Your task to perform on an android device: Open calendar and show me the fourth week of next month Image 0: 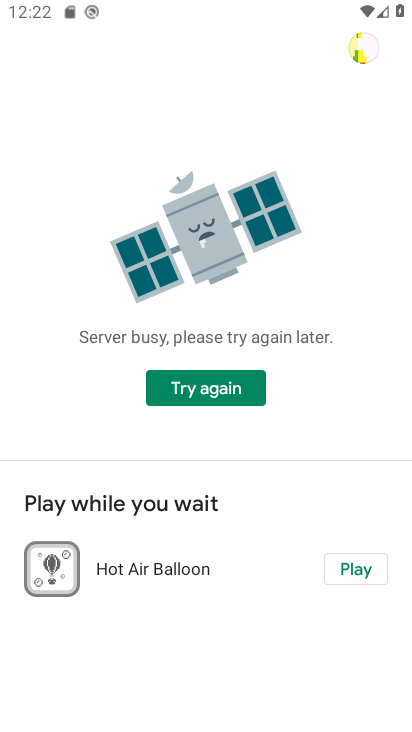
Step 0: press home button
Your task to perform on an android device: Open calendar and show me the fourth week of next month Image 1: 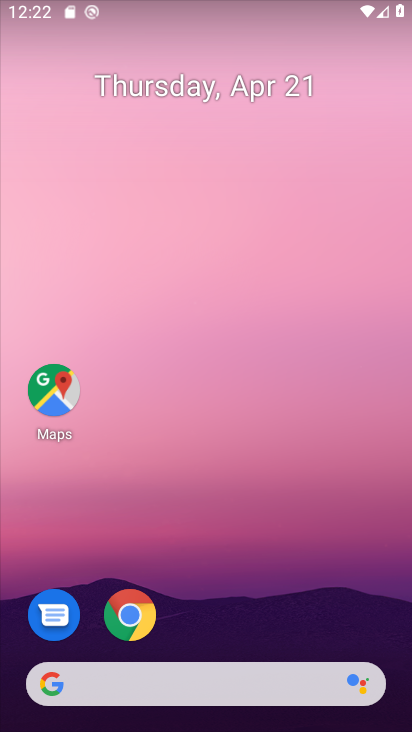
Step 1: drag from (265, 567) to (333, 56)
Your task to perform on an android device: Open calendar and show me the fourth week of next month Image 2: 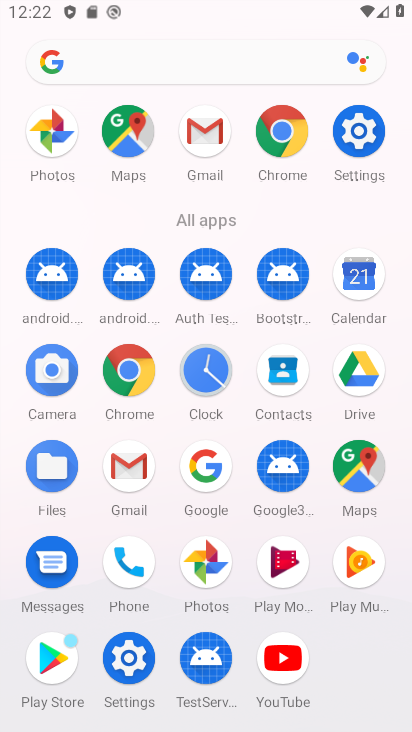
Step 2: click (354, 357)
Your task to perform on an android device: Open calendar and show me the fourth week of next month Image 3: 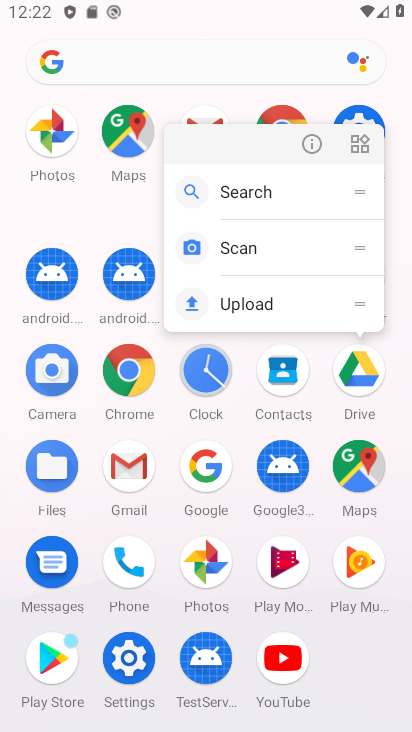
Step 3: press home button
Your task to perform on an android device: Open calendar and show me the fourth week of next month Image 4: 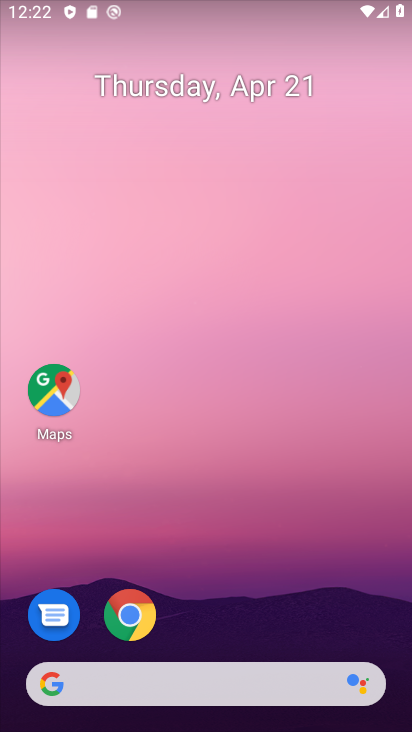
Step 4: drag from (331, 584) to (244, 46)
Your task to perform on an android device: Open calendar and show me the fourth week of next month Image 5: 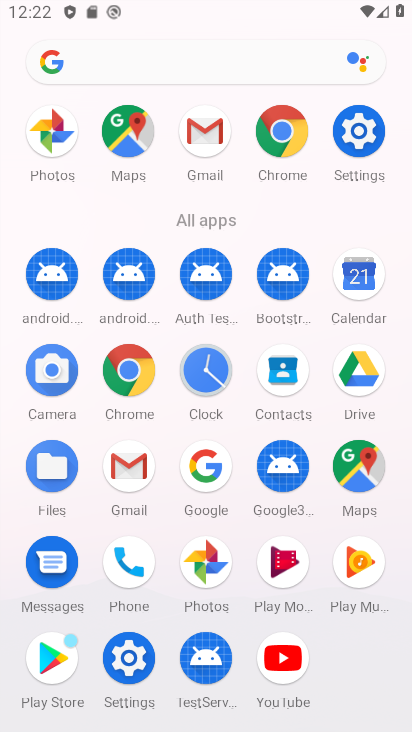
Step 5: click (358, 256)
Your task to perform on an android device: Open calendar and show me the fourth week of next month Image 6: 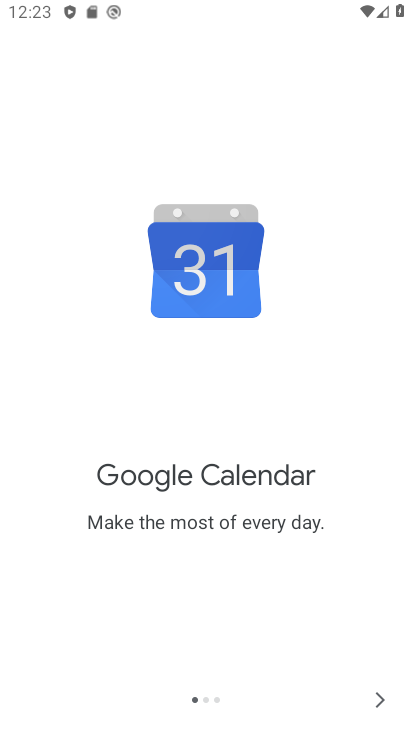
Step 6: click (380, 697)
Your task to perform on an android device: Open calendar and show me the fourth week of next month Image 7: 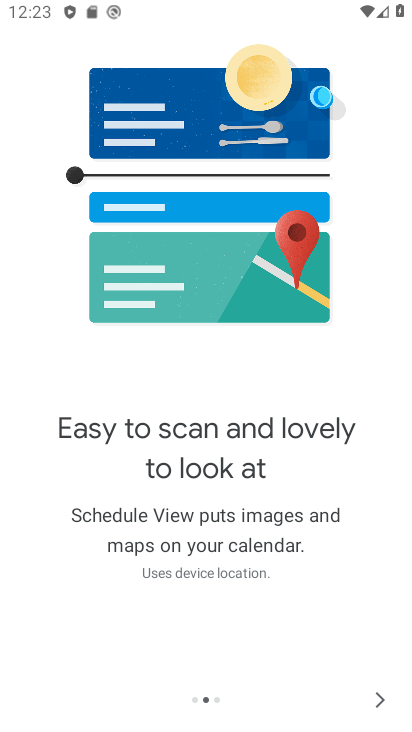
Step 7: click (380, 697)
Your task to perform on an android device: Open calendar and show me the fourth week of next month Image 8: 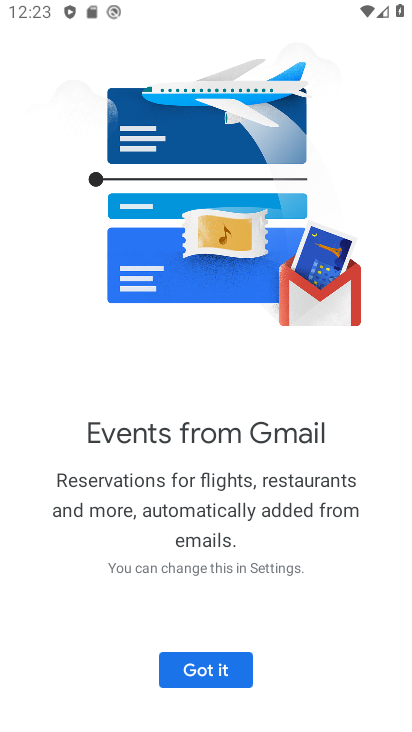
Step 8: click (209, 669)
Your task to perform on an android device: Open calendar and show me the fourth week of next month Image 9: 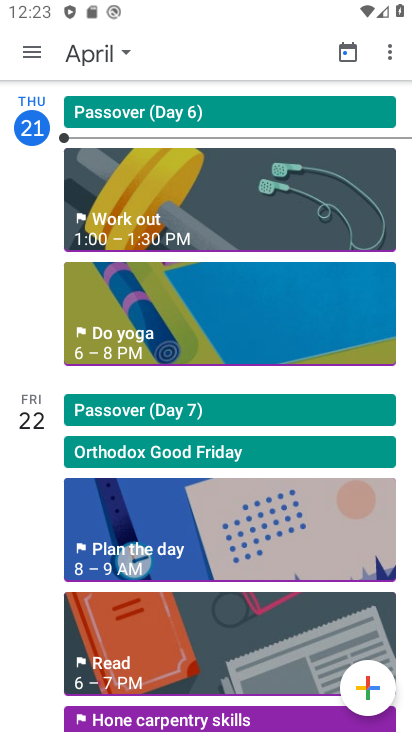
Step 9: click (99, 44)
Your task to perform on an android device: Open calendar and show me the fourth week of next month Image 10: 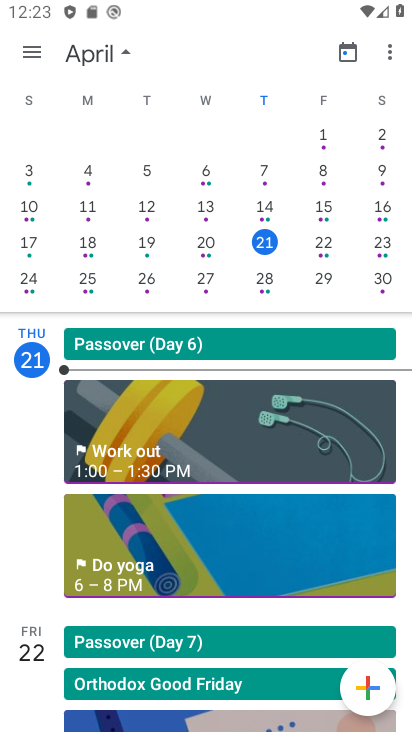
Step 10: drag from (388, 221) to (42, 258)
Your task to perform on an android device: Open calendar and show me the fourth week of next month Image 11: 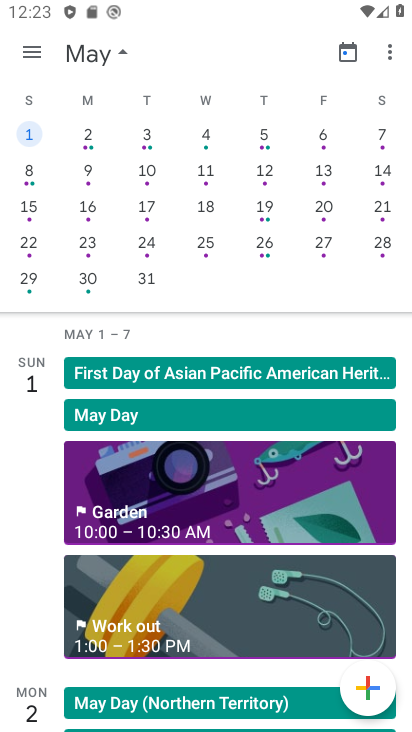
Step 11: click (26, 231)
Your task to perform on an android device: Open calendar and show me the fourth week of next month Image 12: 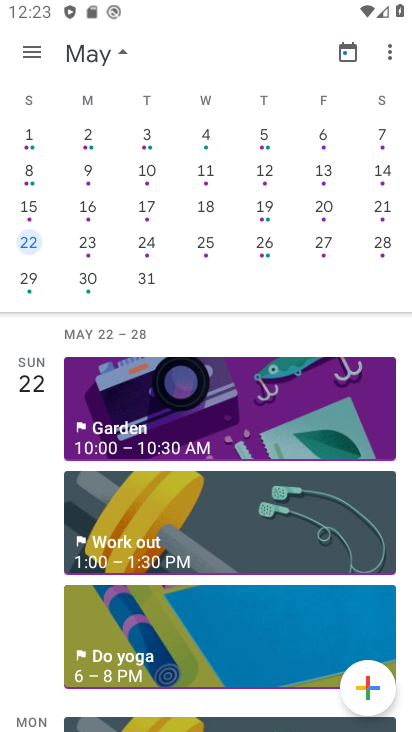
Step 12: task complete